Your task to perform on an android device: Open the Play Movies app and select the watchlist tab. Image 0: 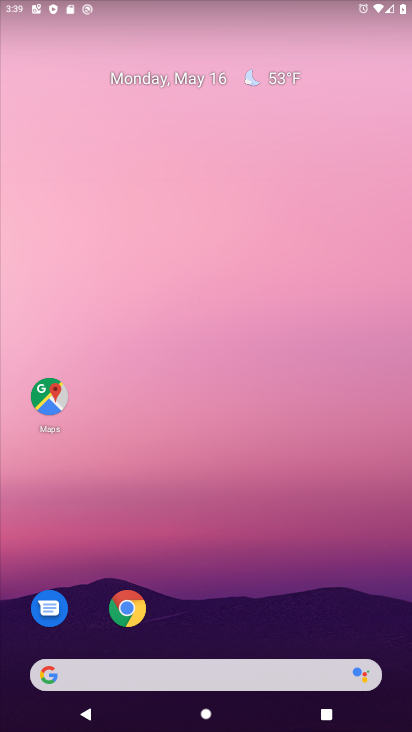
Step 0: drag from (257, 586) to (216, 131)
Your task to perform on an android device: Open the Play Movies app and select the watchlist tab. Image 1: 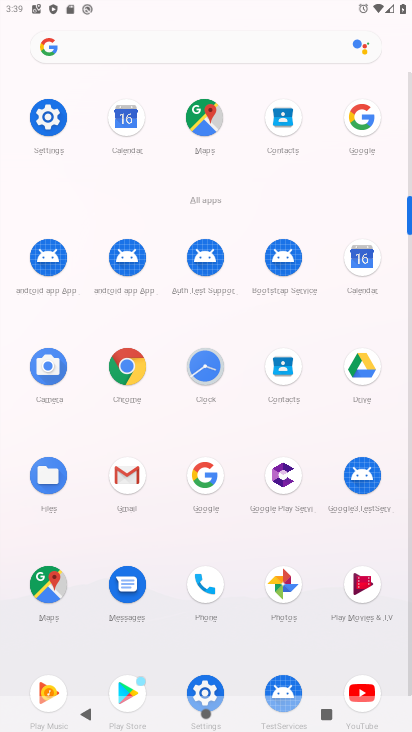
Step 1: drag from (235, 554) to (238, 341)
Your task to perform on an android device: Open the Play Movies app and select the watchlist tab. Image 2: 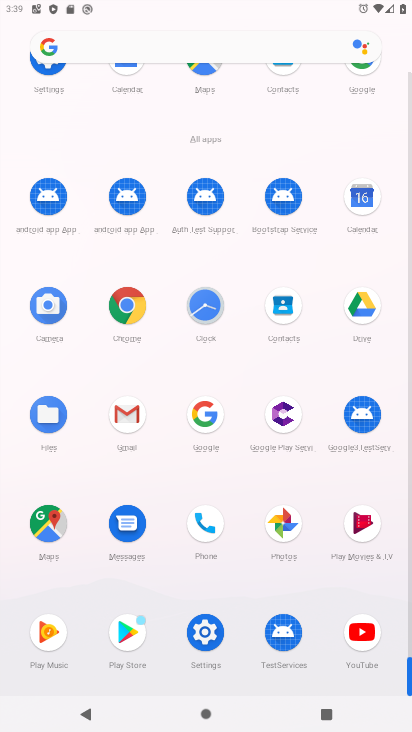
Step 2: click (361, 522)
Your task to perform on an android device: Open the Play Movies app and select the watchlist tab. Image 3: 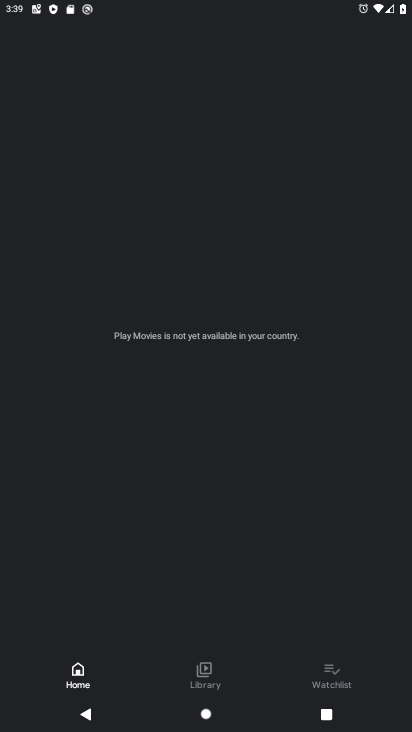
Step 3: click (331, 672)
Your task to perform on an android device: Open the Play Movies app and select the watchlist tab. Image 4: 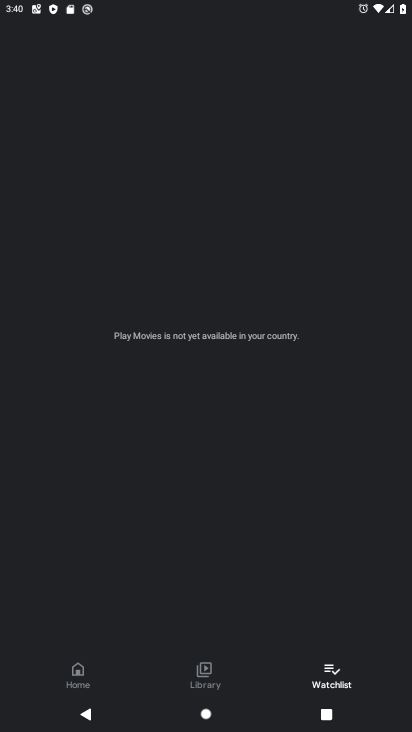
Step 4: task complete